Your task to perform on an android device: Open Youtube and go to "Your channel" Image 0: 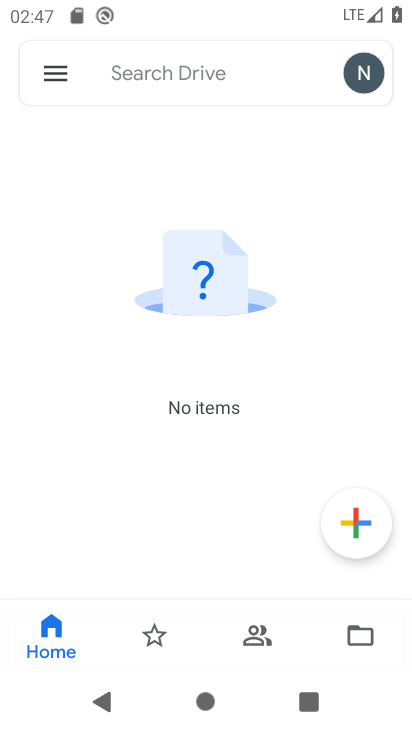
Step 0: press home button
Your task to perform on an android device: Open Youtube and go to "Your channel" Image 1: 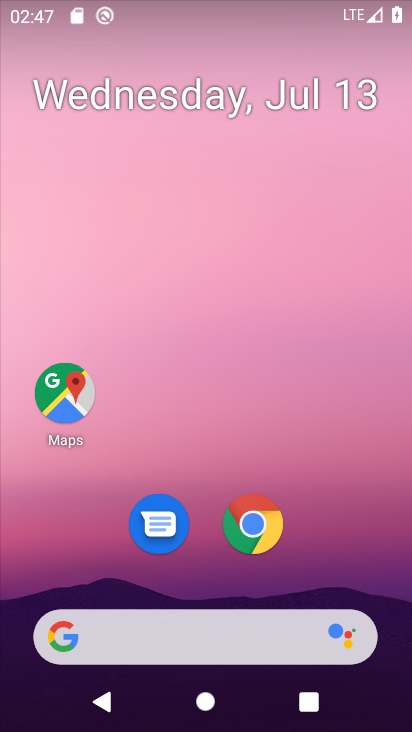
Step 1: drag from (304, 548) to (317, 24)
Your task to perform on an android device: Open Youtube and go to "Your channel" Image 2: 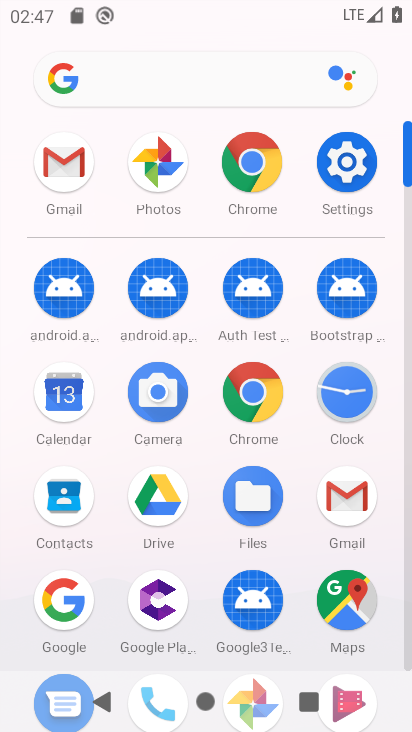
Step 2: drag from (196, 450) to (232, 30)
Your task to perform on an android device: Open Youtube and go to "Your channel" Image 3: 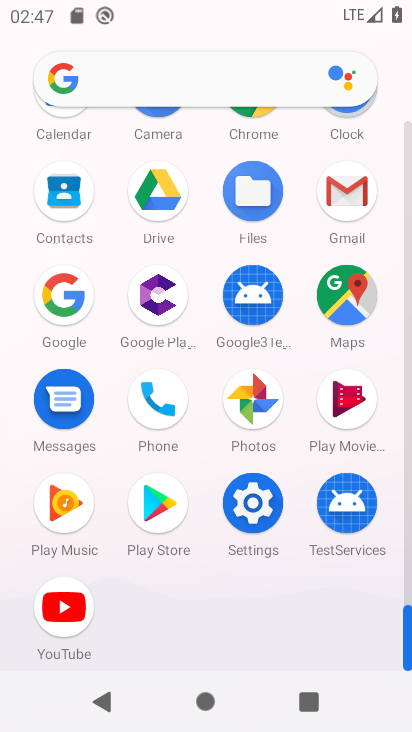
Step 3: click (62, 595)
Your task to perform on an android device: Open Youtube and go to "Your channel" Image 4: 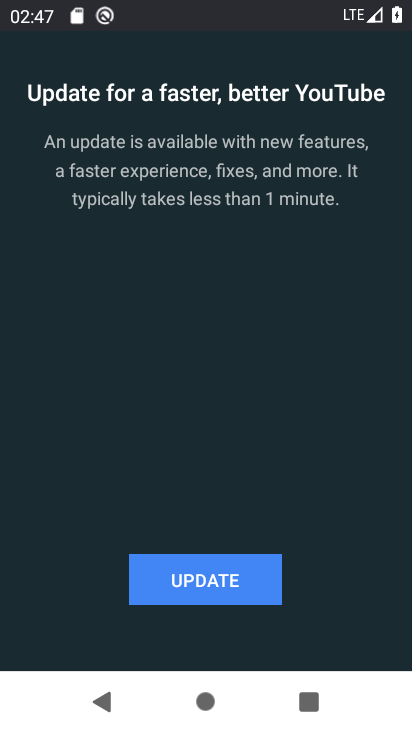
Step 4: press home button
Your task to perform on an android device: Open Youtube and go to "Your channel" Image 5: 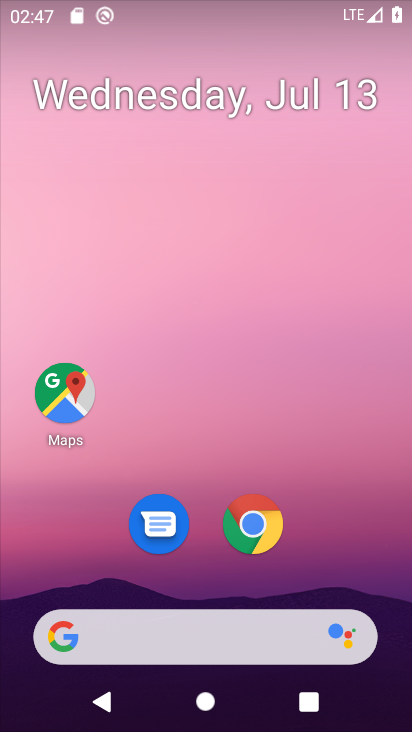
Step 5: drag from (316, 543) to (311, 0)
Your task to perform on an android device: Open Youtube and go to "Your channel" Image 6: 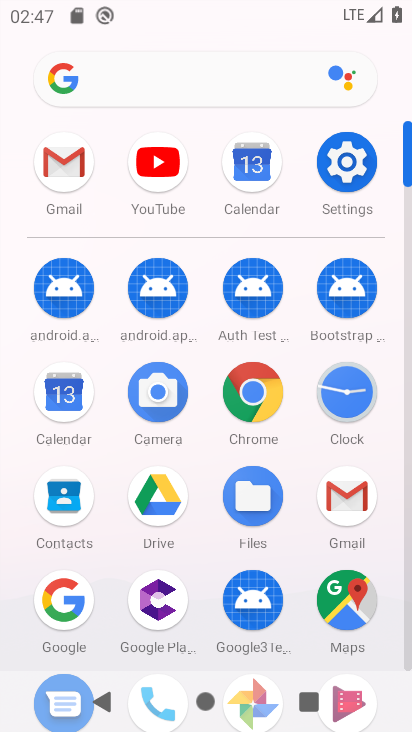
Step 6: click (168, 148)
Your task to perform on an android device: Open Youtube and go to "Your channel" Image 7: 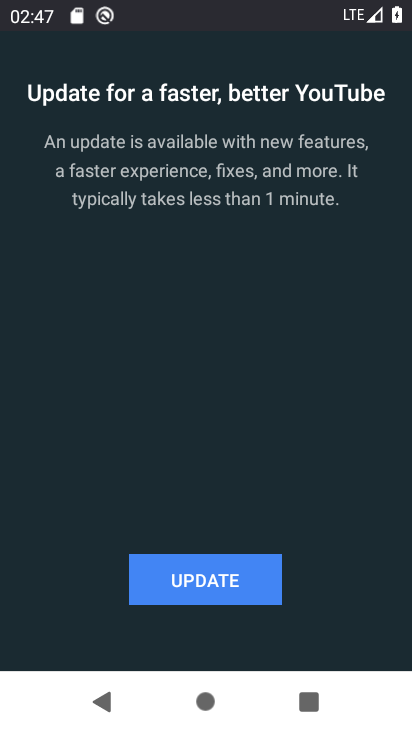
Step 7: click (230, 581)
Your task to perform on an android device: Open Youtube and go to "Your channel" Image 8: 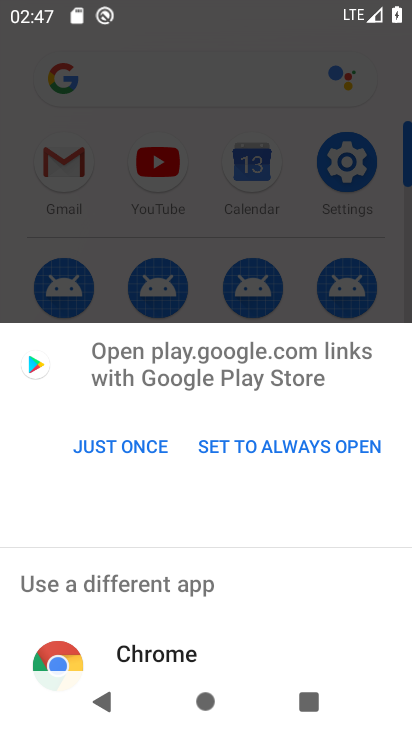
Step 8: click (129, 447)
Your task to perform on an android device: Open Youtube and go to "Your channel" Image 9: 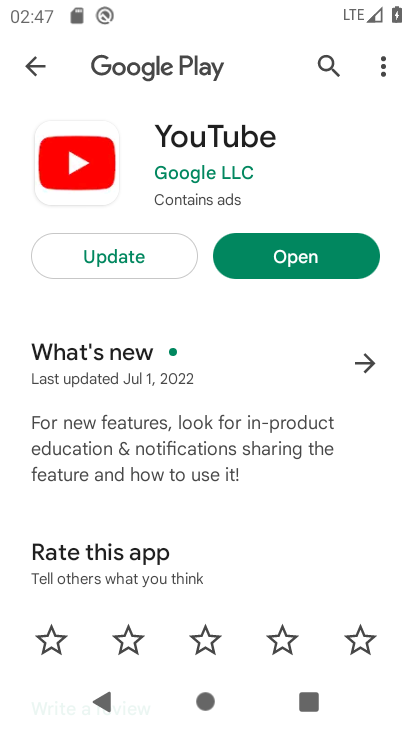
Step 9: click (154, 261)
Your task to perform on an android device: Open Youtube and go to "Your channel" Image 10: 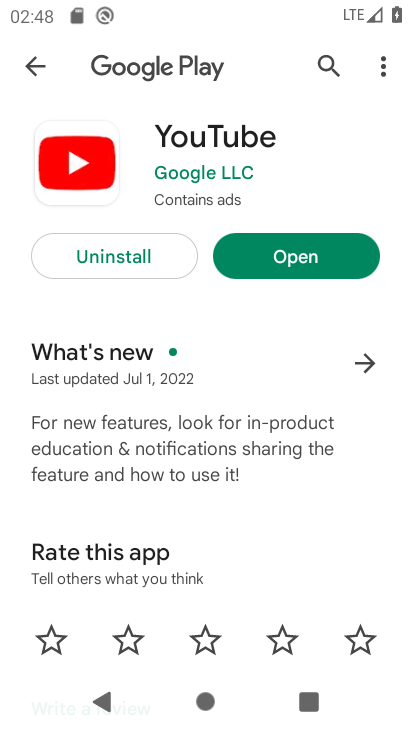
Step 10: click (328, 257)
Your task to perform on an android device: Open Youtube and go to "Your channel" Image 11: 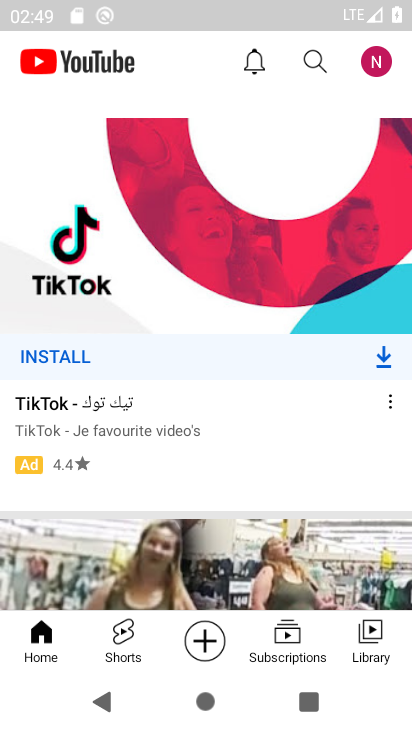
Step 11: click (373, 63)
Your task to perform on an android device: Open Youtube and go to "Your channel" Image 12: 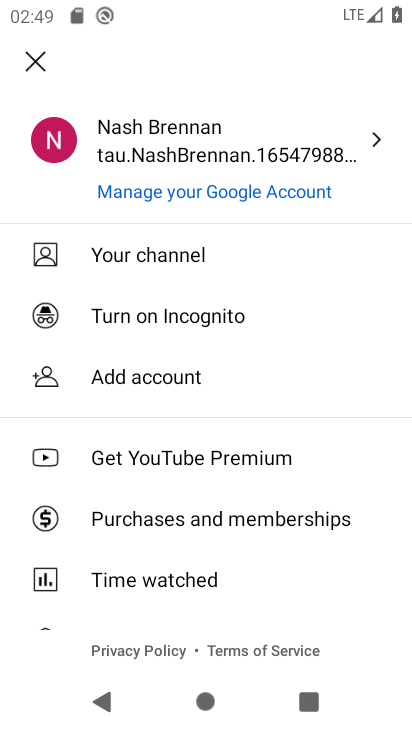
Step 12: click (194, 259)
Your task to perform on an android device: Open Youtube and go to "Your channel" Image 13: 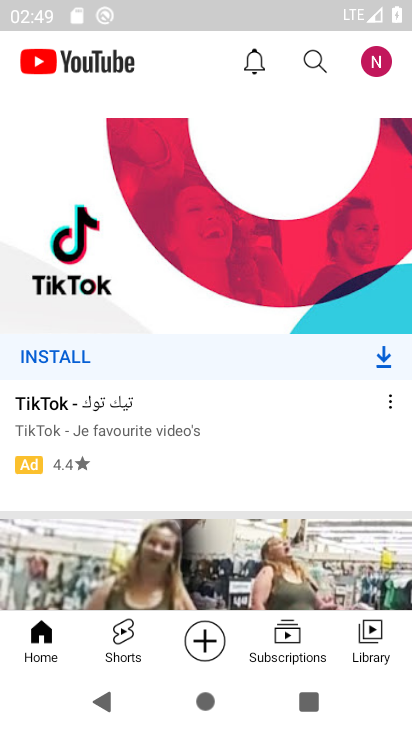
Step 13: task complete